Your task to perform on an android device: turn off translation in the chrome app Image 0: 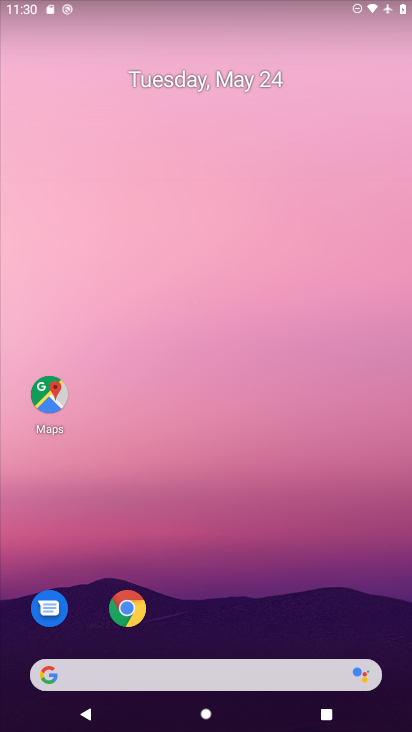
Step 0: click (128, 609)
Your task to perform on an android device: turn off translation in the chrome app Image 1: 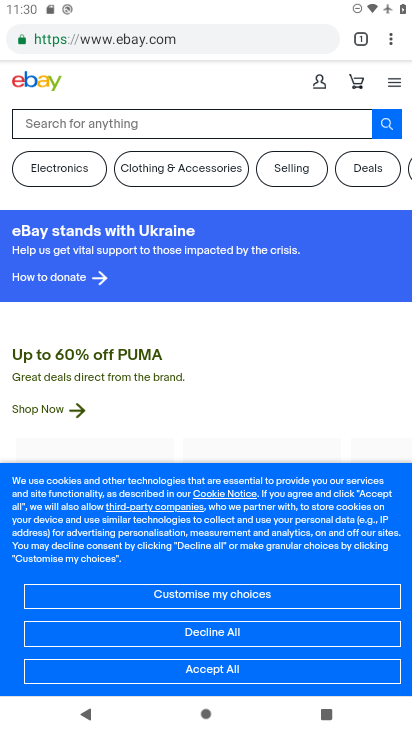
Step 1: click (389, 43)
Your task to perform on an android device: turn off translation in the chrome app Image 2: 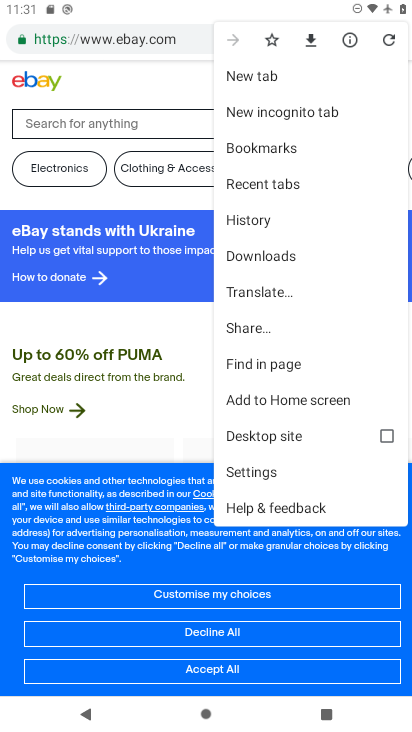
Step 2: click (266, 464)
Your task to perform on an android device: turn off translation in the chrome app Image 3: 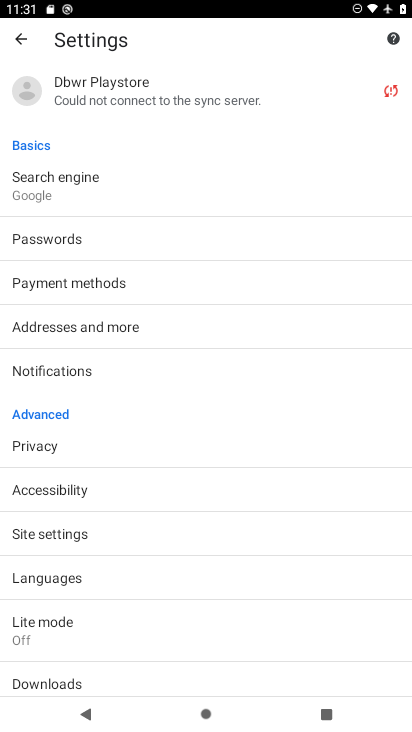
Step 3: drag from (185, 495) to (191, 245)
Your task to perform on an android device: turn off translation in the chrome app Image 4: 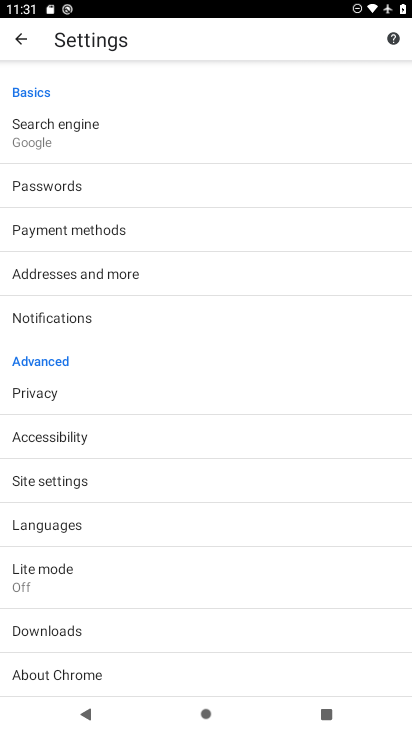
Step 4: click (37, 482)
Your task to perform on an android device: turn off translation in the chrome app Image 5: 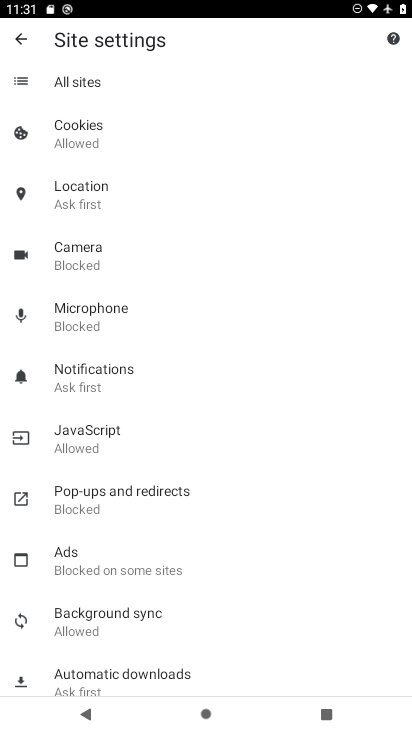
Step 5: press back button
Your task to perform on an android device: turn off translation in the chrome app Image 6: 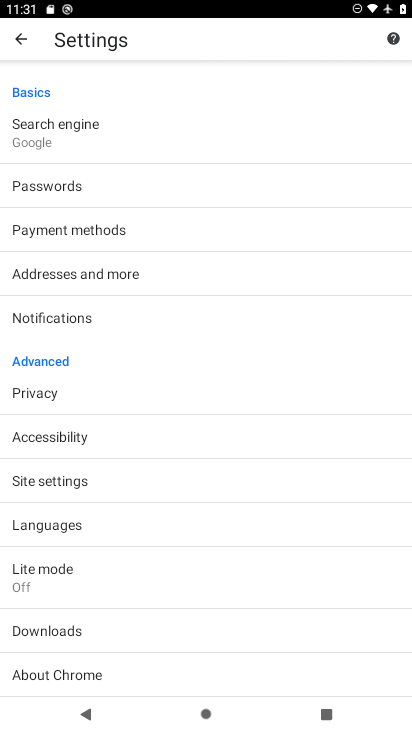
Step 6: click (43, 531)
Your task to perform on an android device: turn off translation in the chrome app Image 7: 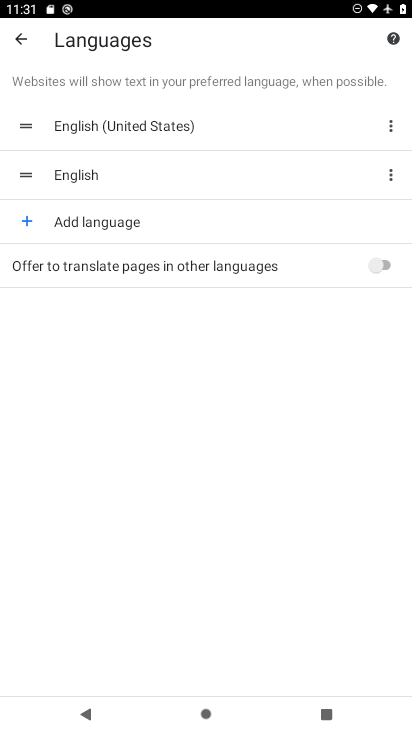
Step 7: task complete